Your task to perform on an android device: turn on location history Image 0: 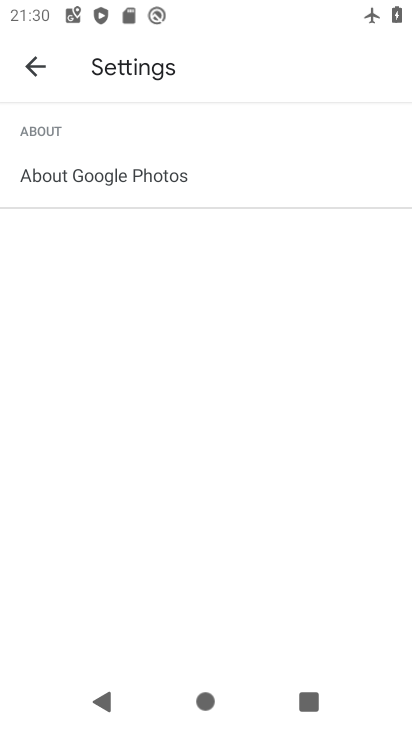
Step 0: press home button
Your task to perform on an android device: turn on location history Image 1: 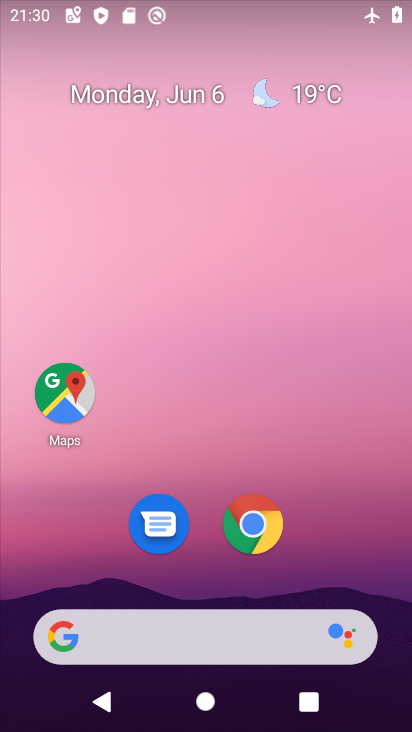
Step 1: drag from (214, 439) to (203, 10)
Your task to perform on an android device: turn on location history Image 2: 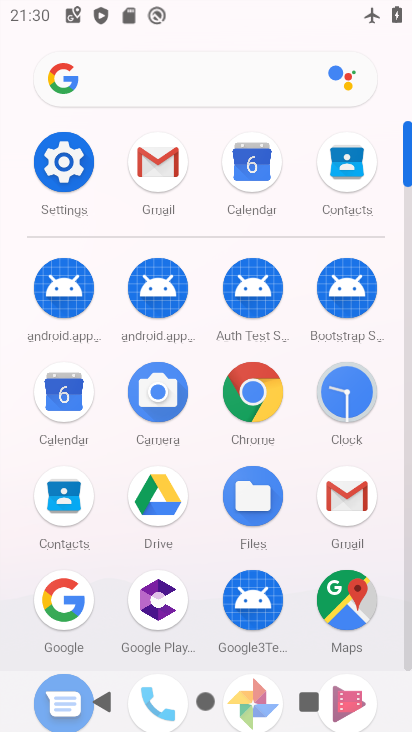
Step 2: click (68, 161)
Your task to perform on an android device: turn on location history Image 3: 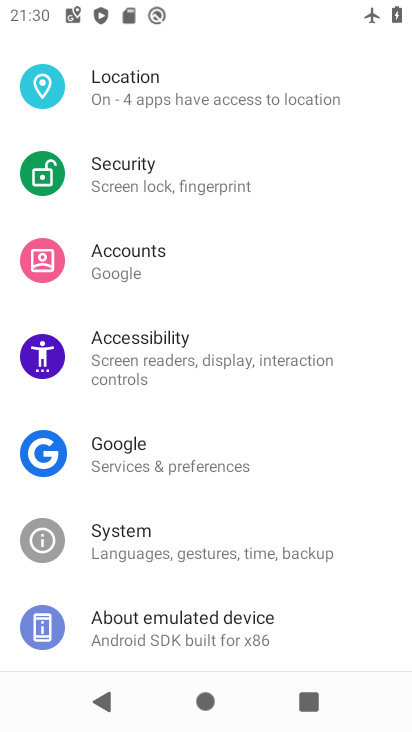
Step 3: drag from (222, 258) to (218, 678)
Your task to perform on an android device: turn on location history Image 4: 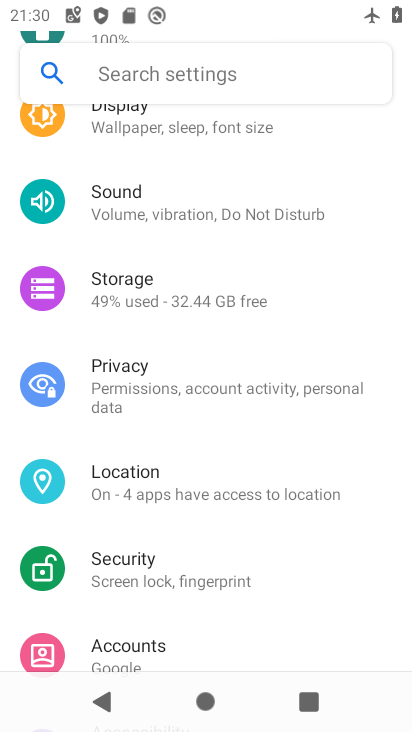
Step 4: drag from (227, 274) to (278, 659)
Your task to perform on an android device: turn on location history Image 5: 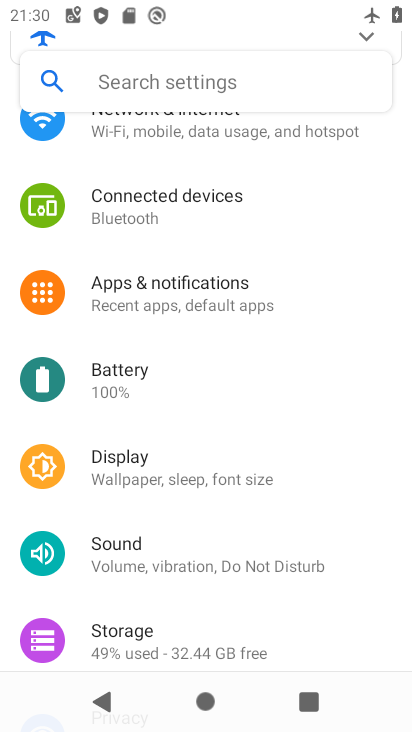
Step 5: drag from (242, 230) to (242, 34)
Your task to perform on an android device: turn on location history Image 6: 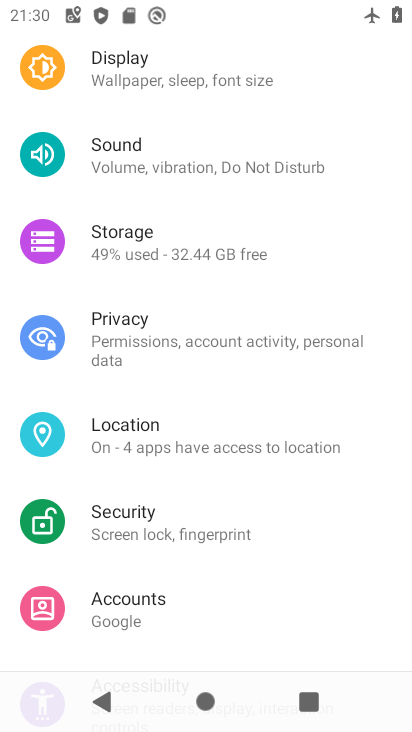
Step 6: click (218, 437)
Your task to perform on an android device: turn on location history Image 7: 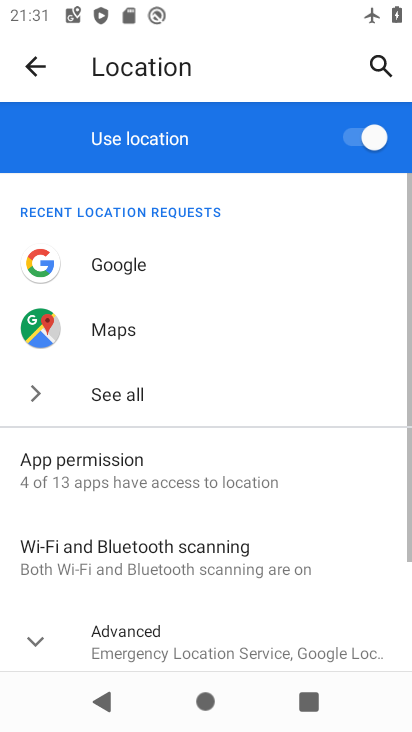
Step 7: click (37, 65)
Your task to perform on an android device: turn on location history Image 8: 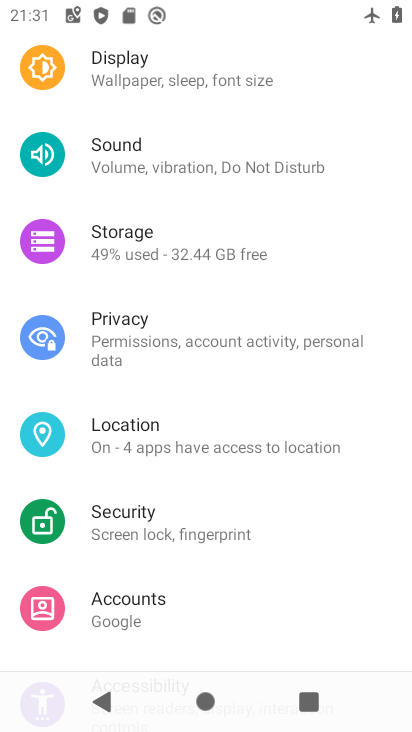
Step 8: drag from (249, 120) to (218, 512)
Your task to perform on an android device: turn on location history Image 9: 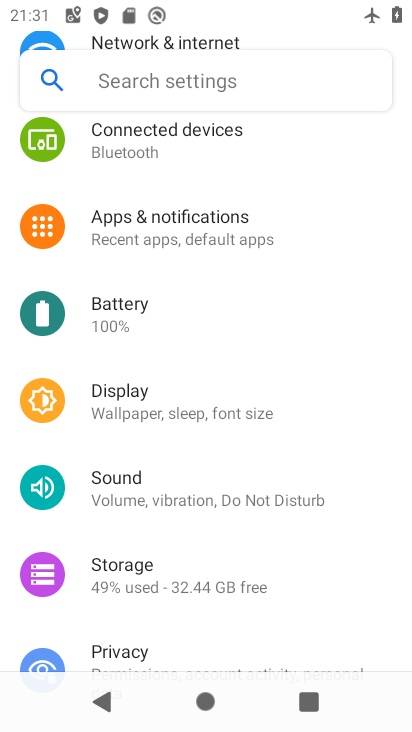
Step 9: drag from (200, 196) to (178, 415)
Your task to perform on an android device: turn on location history Image 10: 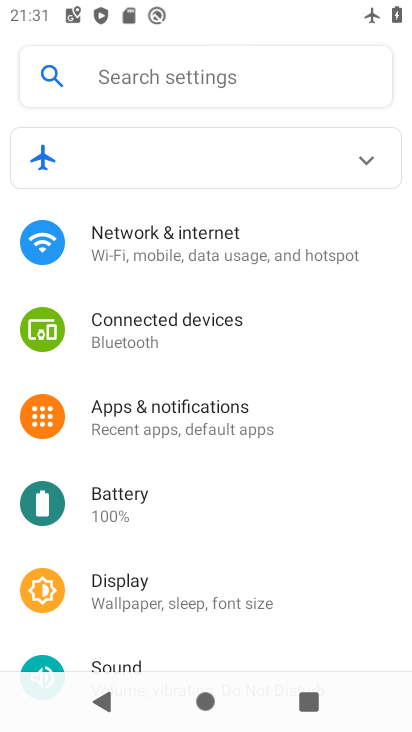
Step 10: click (228, 244)
Your task to perform on an android device: turn on location history Image 11: 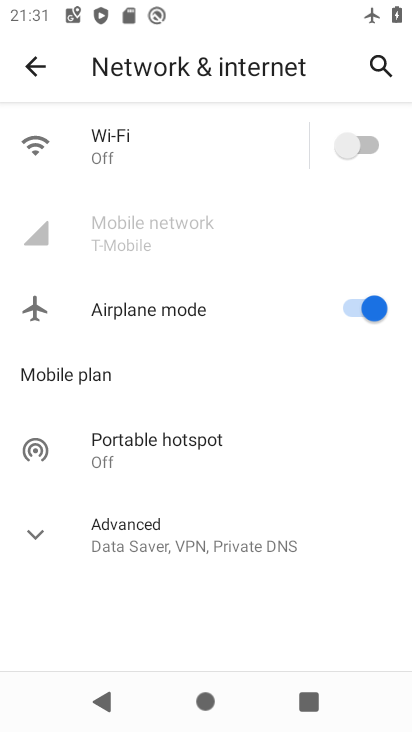
Step 11: click (346, 305)
Your task to perform on an android device: turn on location history Image 12: 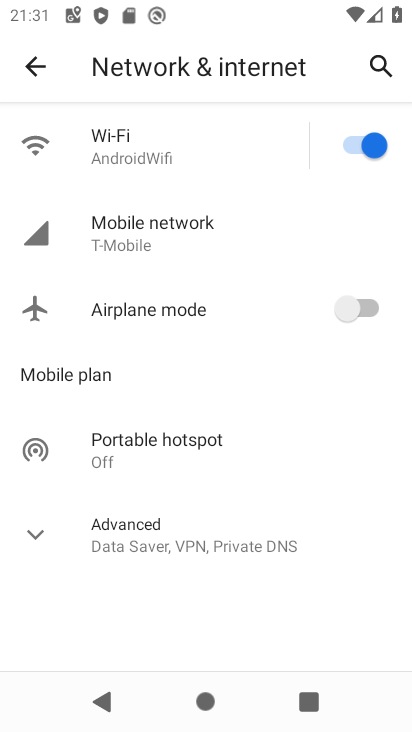
Step 12: task complete